Your task to perform on an android device: Go to privacy settings Image 0: 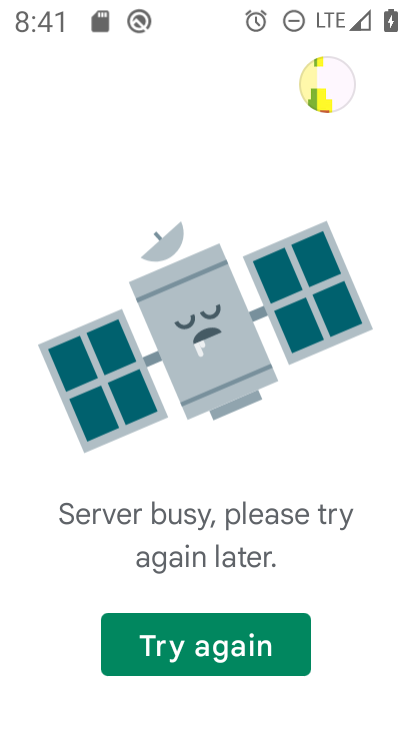
Step 0: press home button
Your task to perform on an android device: Go to privacy settings Image 1: 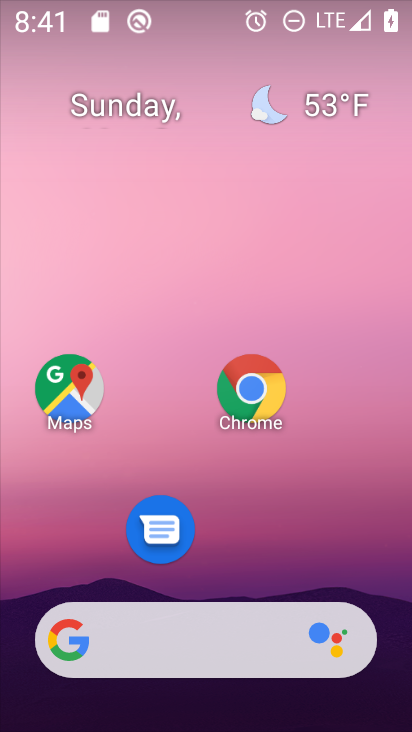
Step 1: drag from (228, 548) to (272, 98)
Your task to perform on an android device: Go to privacy settings Image 2: 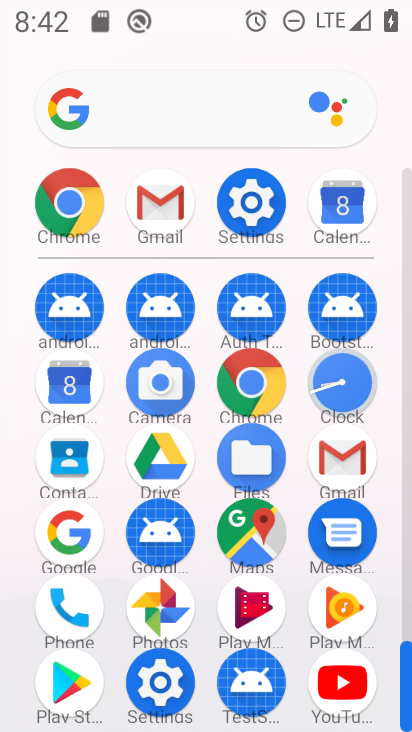
Step 2: click (256, 205)
Your task to perform on an android device: Go to privacy settings Image 3: 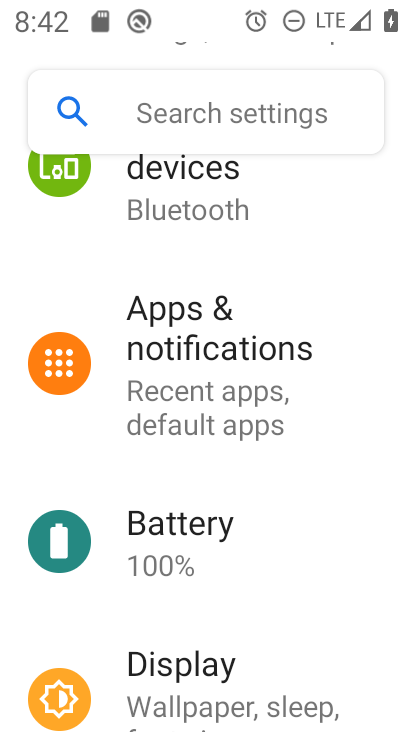
Step 3: drag from (176, 633) to (271, 197)
Your task to perform on an android device: Go to privacy settings Image 4: 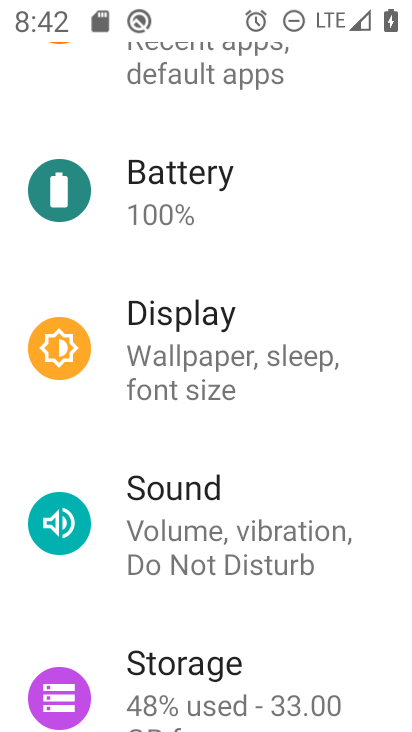
Step 4: drag from (207, 628) to (253, 250)
Your task to perform on an android device: Go to privacy settings Image 5: 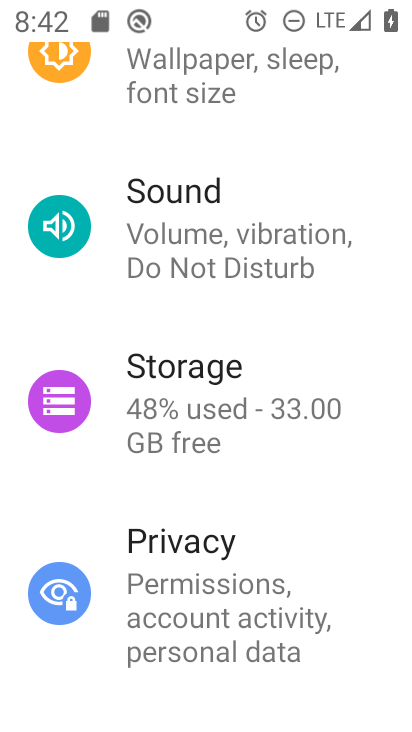
Step 5: click (149, 563)
Your task to perform on an android device: Go to privacy settings Image 6: 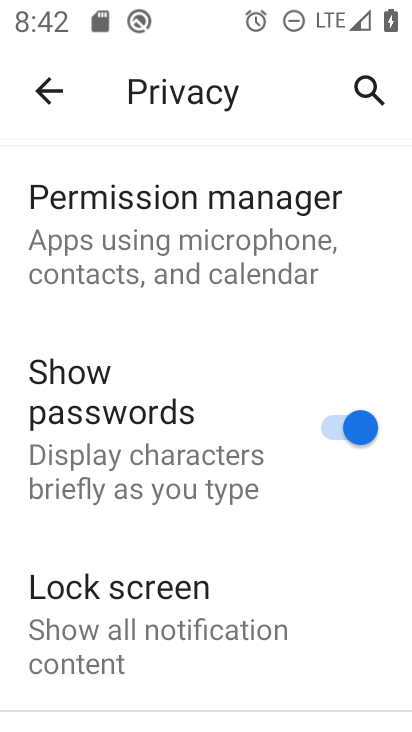
Step 6: task complete